Your task to perform on an android device: find snoozed emails in the gmail app Image 0: 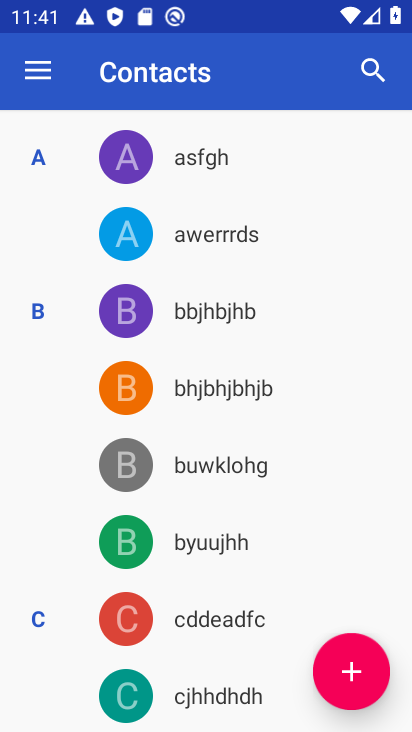
Step 0: press home button
Your task to perform on an android device: find snoozed emails in the gmail app Image 1: 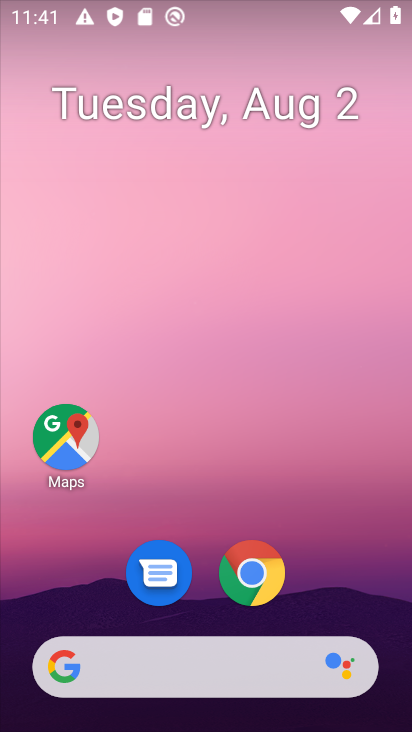
Step 1: drag from (198, 676) to (283, 145)
Your task to perform on an android device: find snoozed emails in the gmail app Image 2: 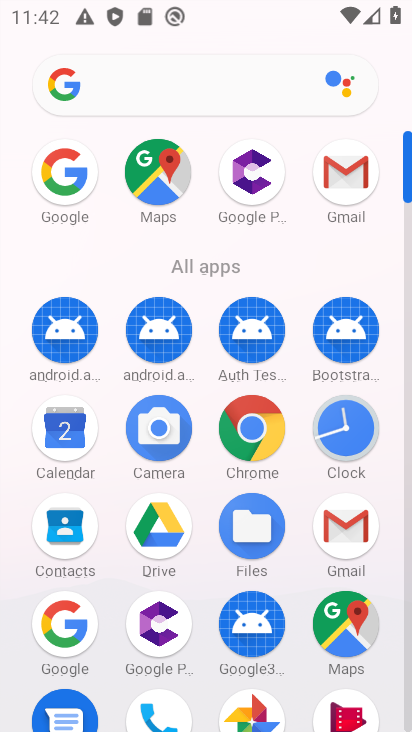
Step 2: click (328, 174)
Your task to perform on an android device: find snoozed emails in the gmail app Image 3: 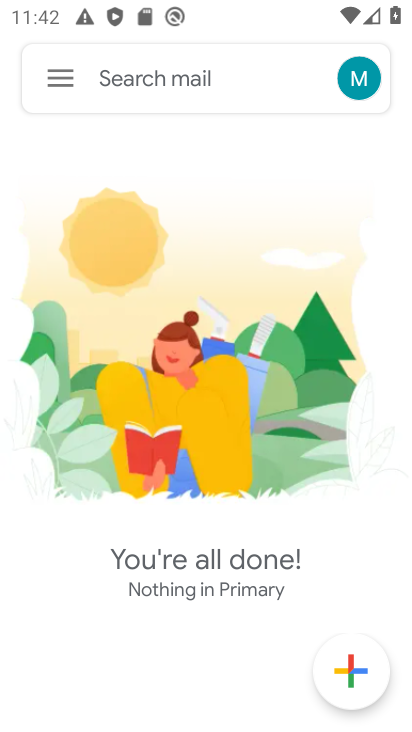
Step 3: click (337, 174)
Your task to perform on an android device: find snoozed emails in the gmail app Image 4: 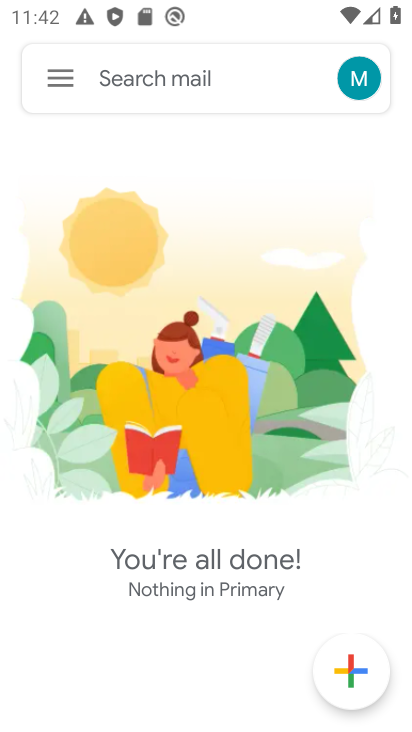
Step 4: click (66, 79)
Your task to perform on an android device: find snoozed emails in the gmail app Image 5: 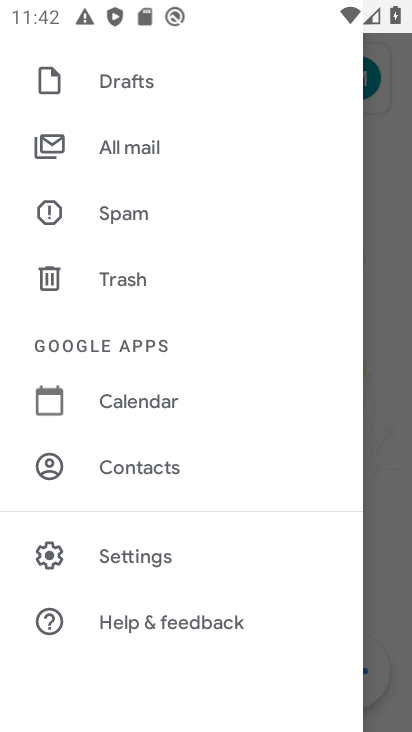
Step 5: drag from (158, 365) to (131, 639)
Your task to perform on an android device: find snoozed emails in the gmail app Image 6: 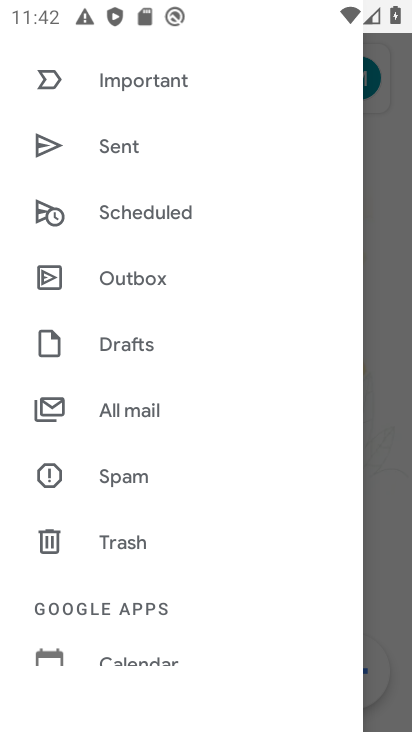
Step 6: drag from (162, 258) to (113, 623)
Your task to perform on an android device: find snoozed emails in the gmail app Image 7: 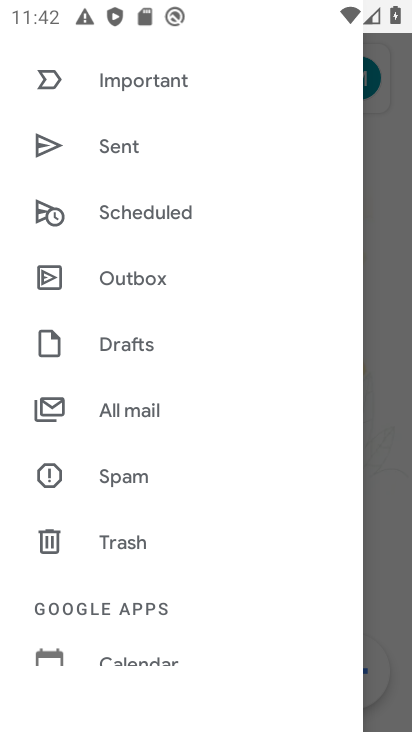
Step 7: drag from (127, 202) to (192, 504)
Your task to perform on an android device: find snoozed emails in the gmail app Image 8: 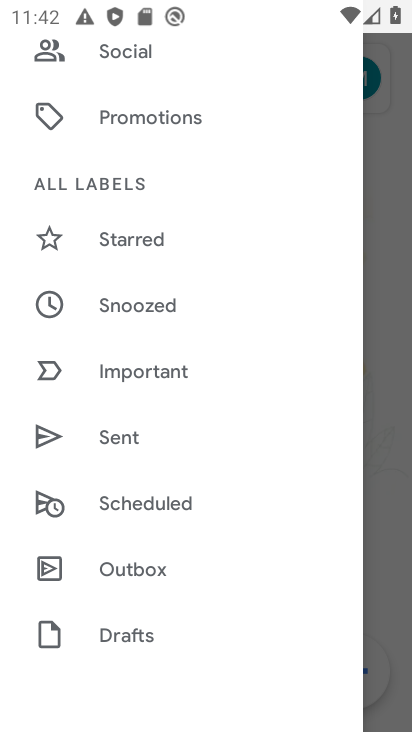
Step 8: click (145, 299)
Your task to perform on an android device: find snoozed emails in the gmail app Image 9: 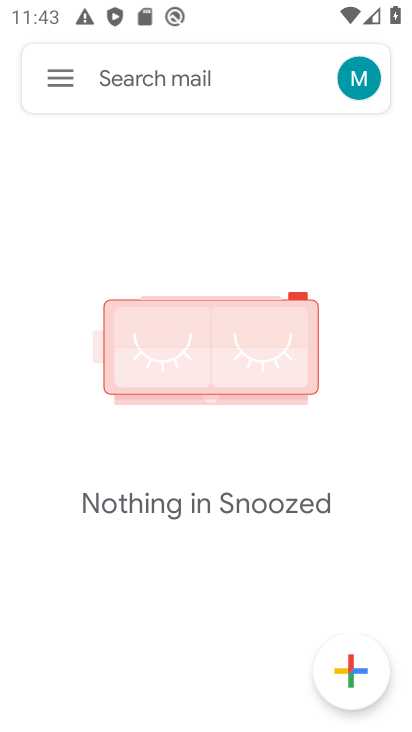
Step 9: task complete